Your task to perform on an android device: change timer sound Image 0: 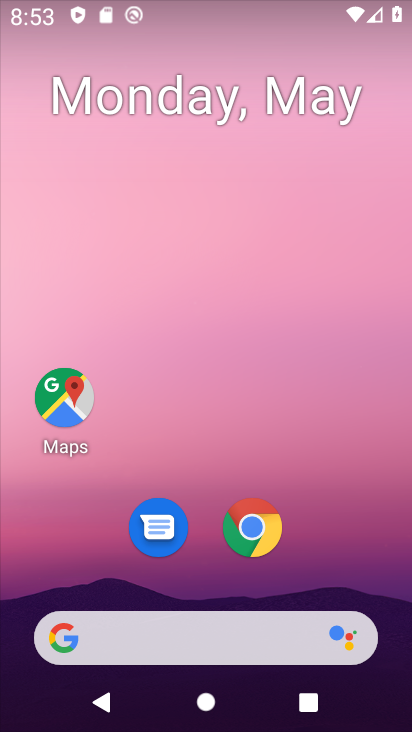
Step 0: drag from (305, 555) to (307, 4)
Your task to perform on an android device: change timer sound Image 1: 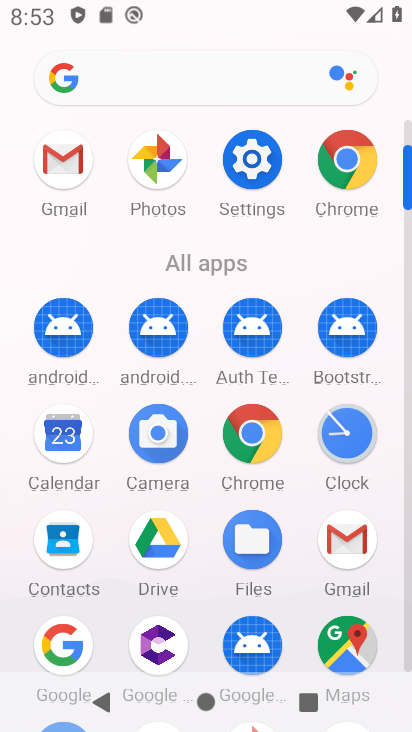
Step 1: drag from (24, 578) to (38, 205)
Your task to perform on an android device: change timer sound Image 2: 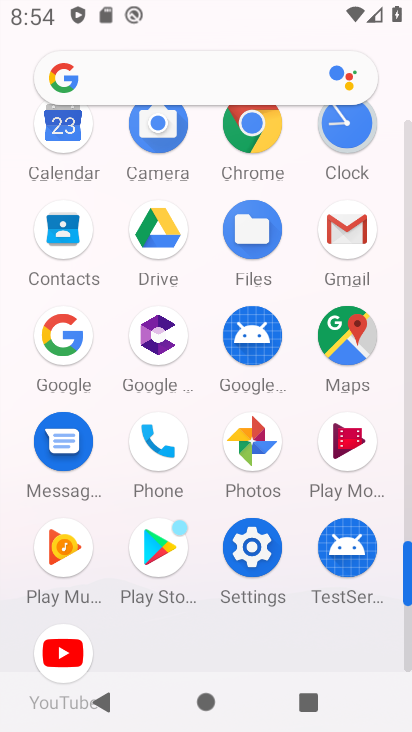
Step 2: click (345, 121)
Your task to perform on an android device: change timer sound Image 3: 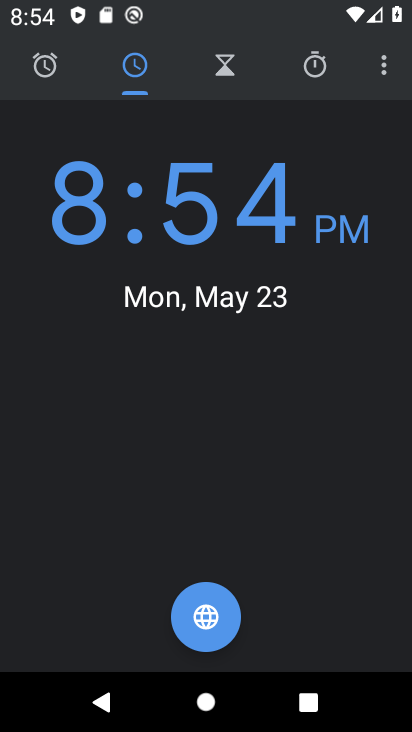
Step 3: drag from (382, 63) to (270, 122)
Your task to perform on an android device: change timer sound Image 4: 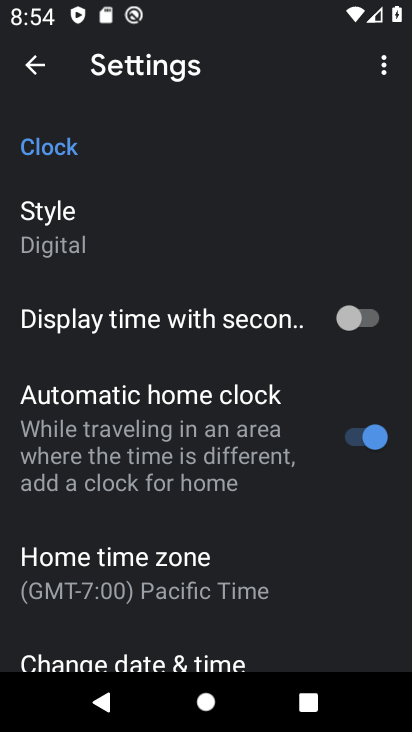
Step 4: drag from (250, 534) to (239, 188)
Your task to perform on an android device: change timer sound Image 5: 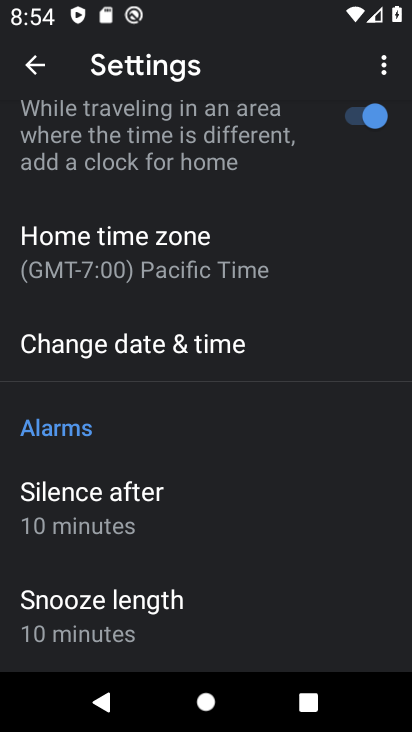
Step 5: drag from (209, 574) to (214, 190)
Your task to perform on an android device: change timer sound Image 6: 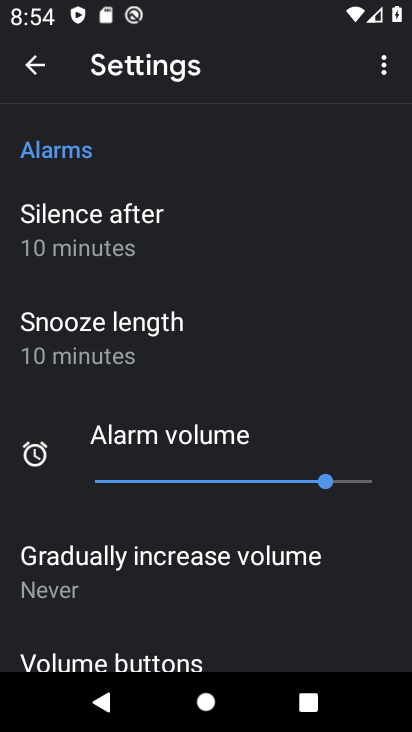
Step 6: drag from (187, 525) to (229, 136)
Your task to perform on an android device: change timer sound Image 7: 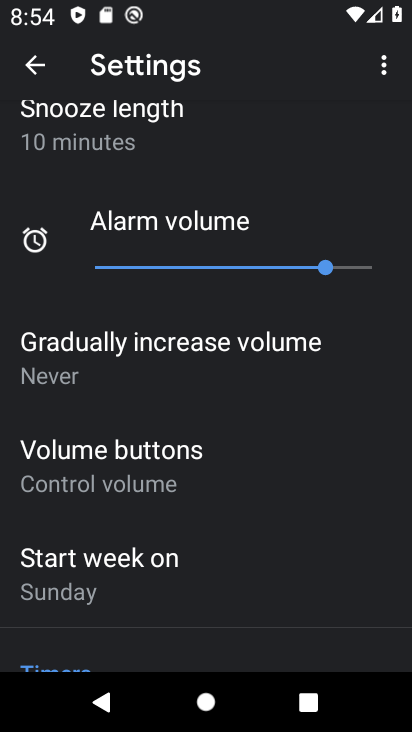
Step 7: drag from (230, 521) to (247, 126)
Your task to perform on an android device: change timer sound Image 8: 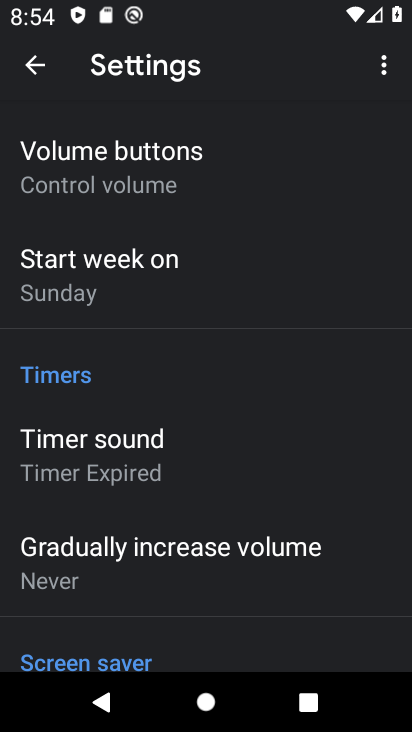
Step 8: drag from (183, 499) to (214, 202)
Your task to perform on an android device: change timer sound Image 9: 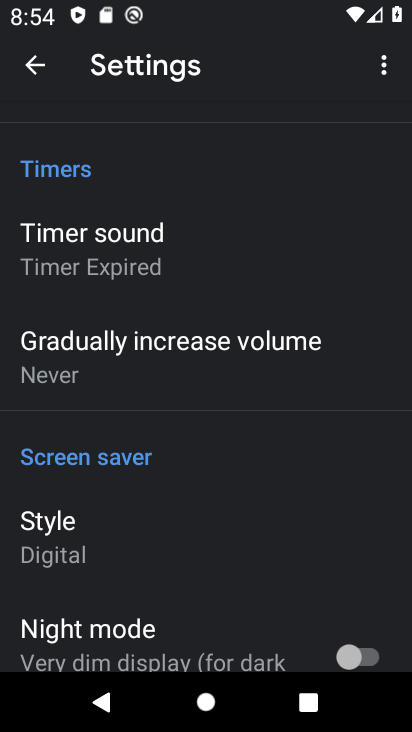
Step 9: click (184, 228)
Your task to perform on an android device: change timer sound Image 10: 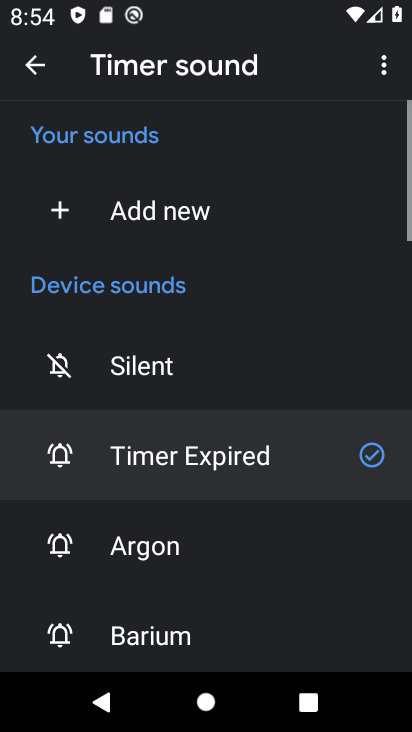
Step 10: click (181, 639)
Your task to perform on an android device: change timer sound Image 11: 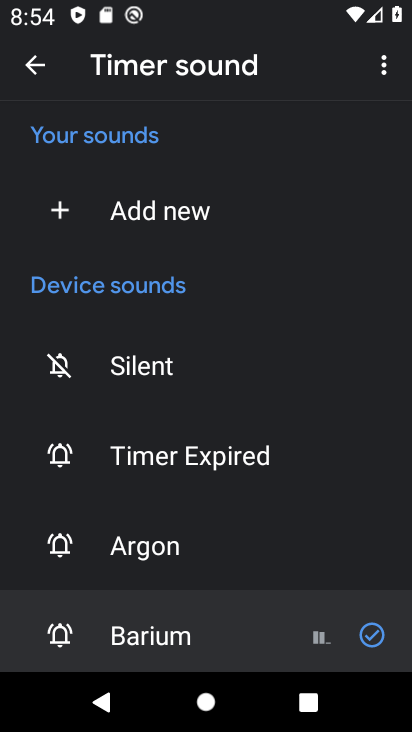
Step 11: task complete